Your task to perform on an android device: Open wifi settings Image 0: 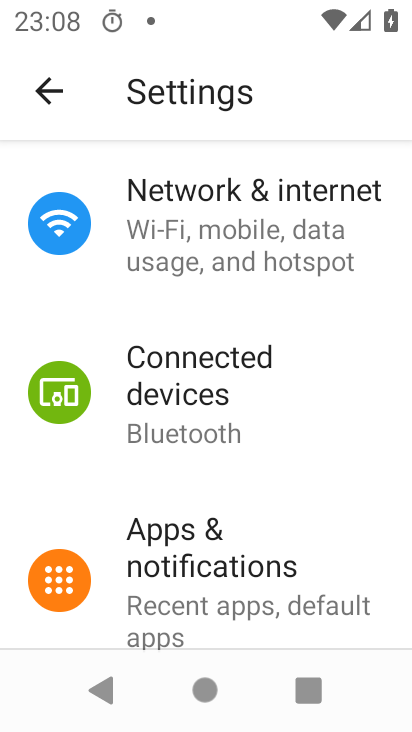
Step 0: click (228, 233)
Your task to perform on an android device: Open wifi settings Image 1: 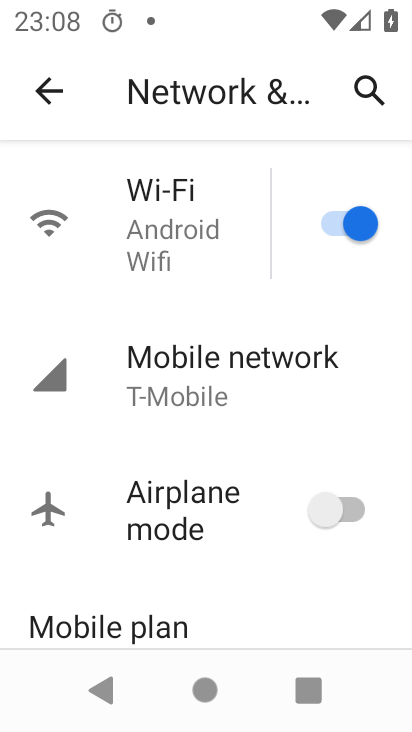
Step 1: drag from (228, 233) to (215, 579)
Your task to perform on an android device: Open wifi settings Image 2: 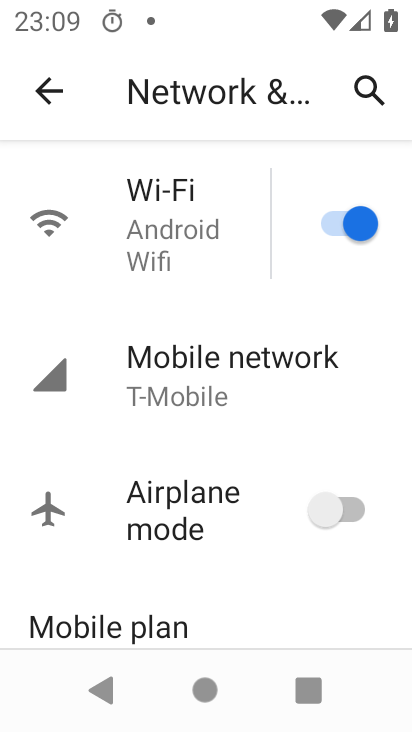
Step 2: click (160, 223)
Your task to perform on an android device: Open wifi settings Image 3: 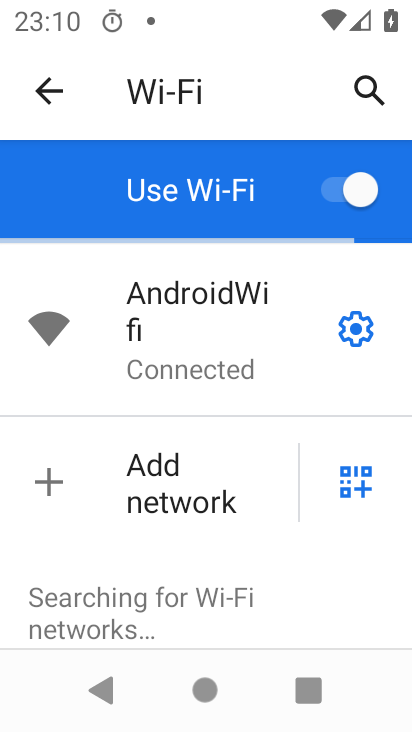
Step 3: task complete